Your task to perform on an android device: toggle notification dots Image 0: 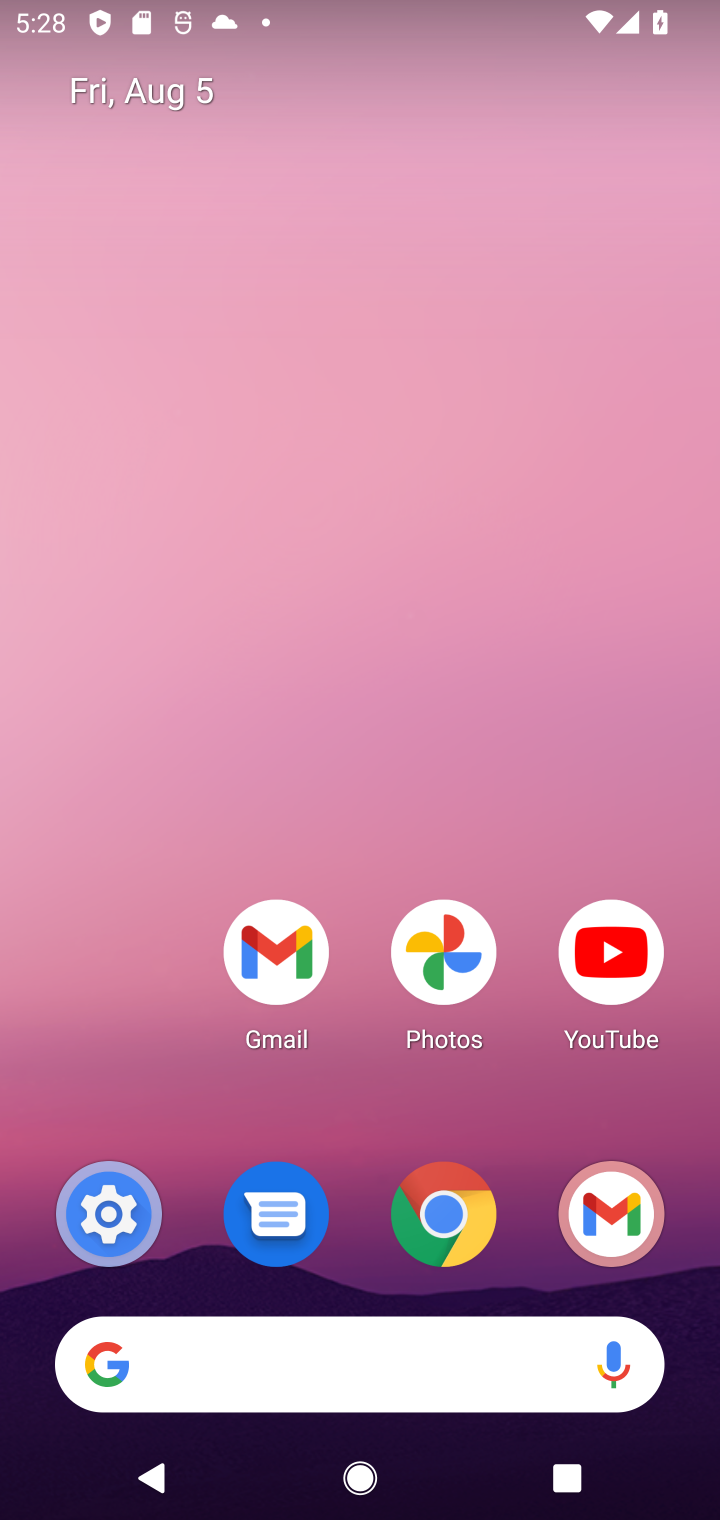
Step 0: click (99, 1213)
Your task to perform on an android device: toggle notification dots Image 1: 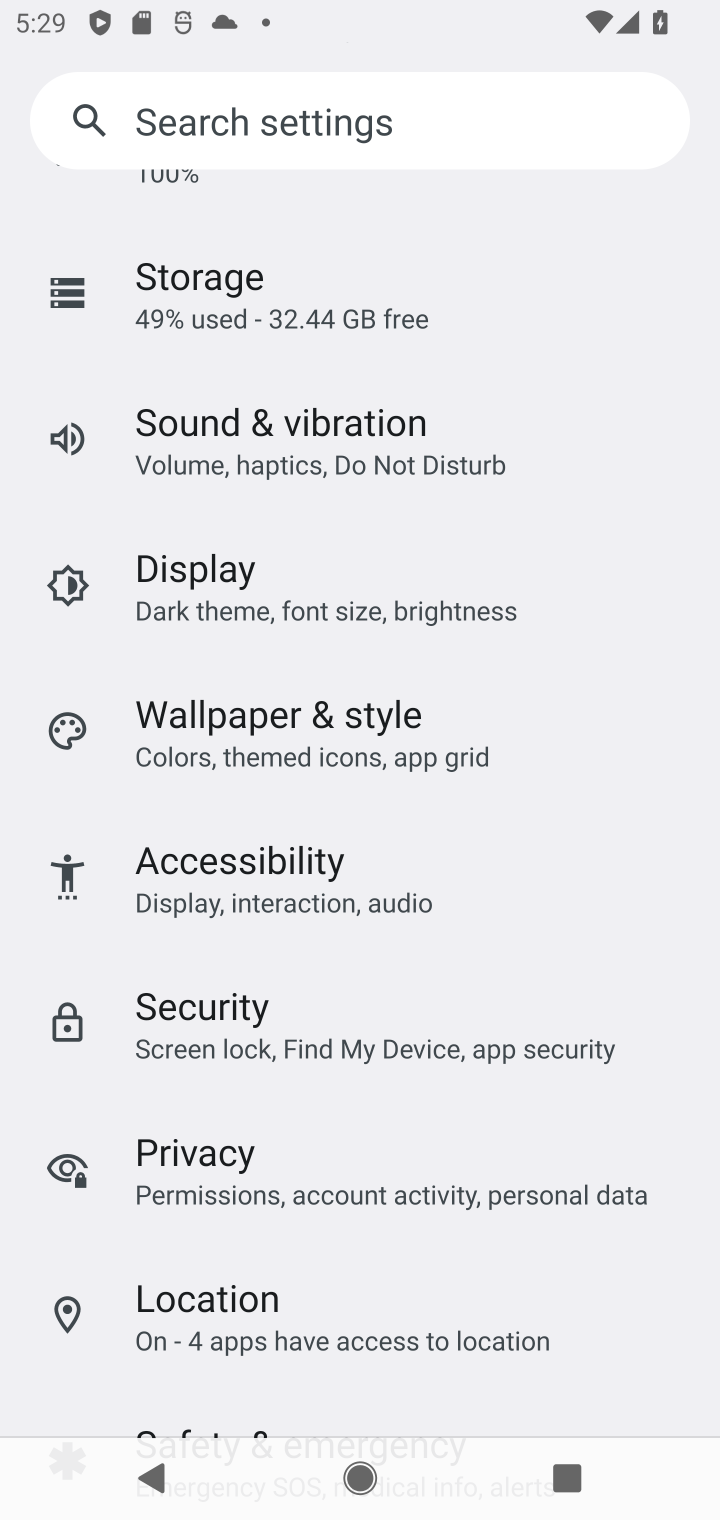
Step 1: drag from (396, 400) to (410, 1234)
Your task to perform on an android device: toggle notification dots Image 2: 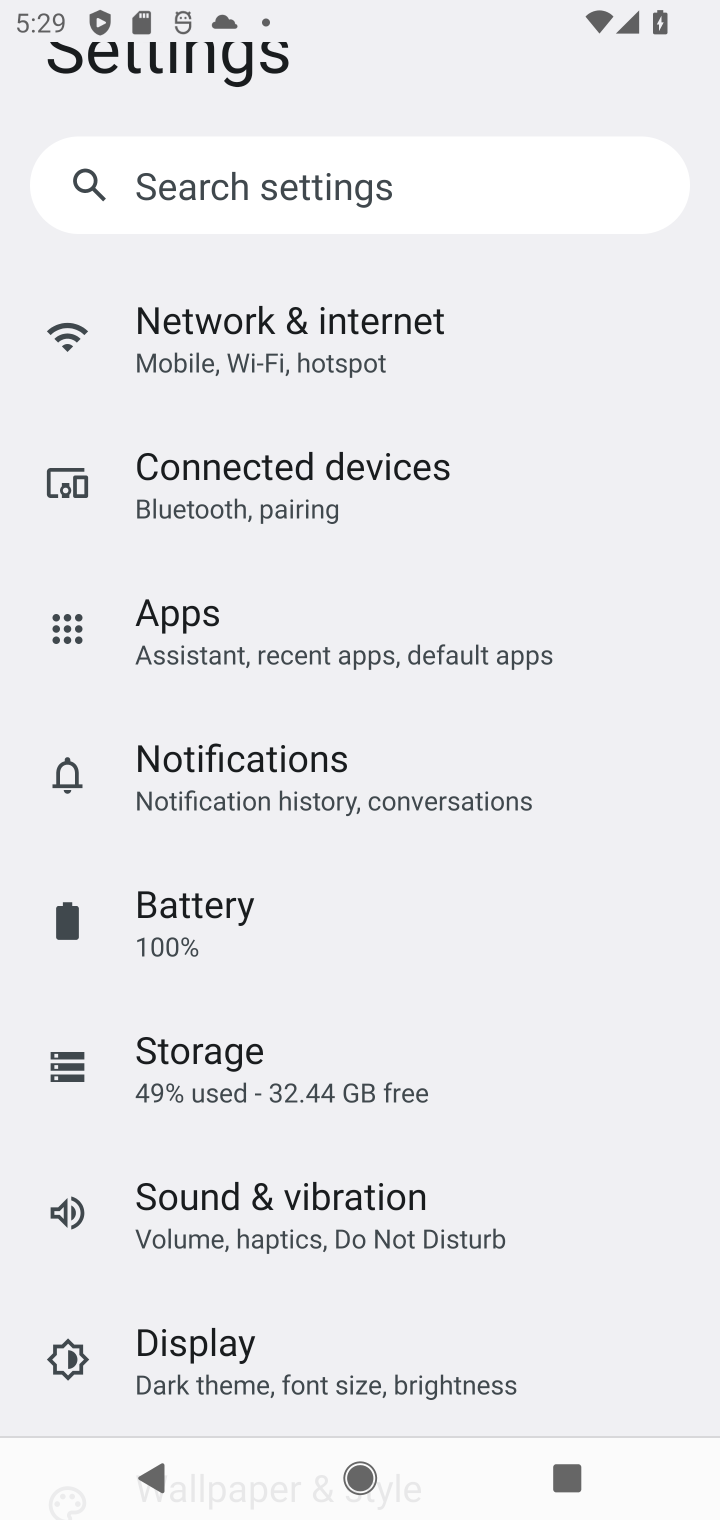
Step 2: click (373, 779)
Your task to perform on an android device: toggle notification dots Image 3: 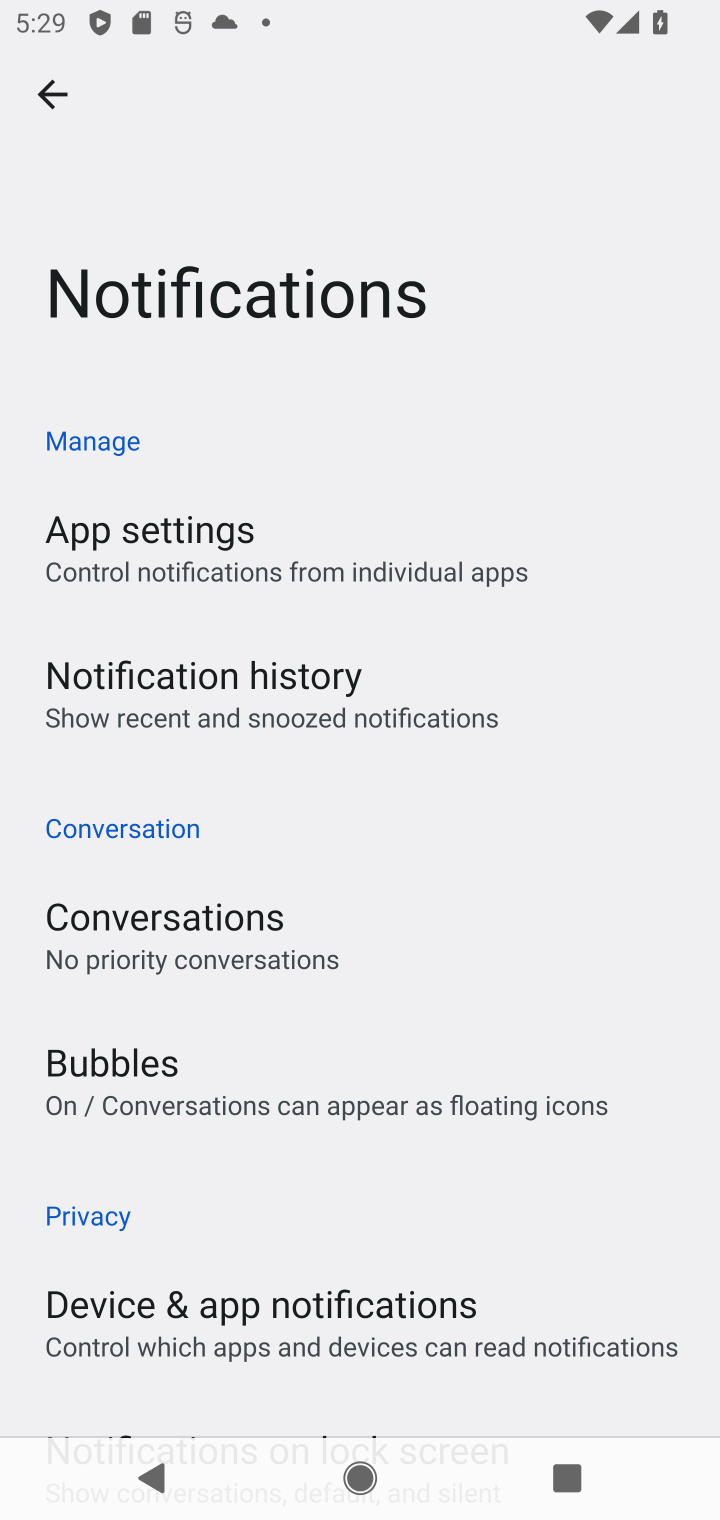
Step 3: drag from (337, 1209) to (364, 142)
Your task to perform on an android device: toggle notification dots Image 4: 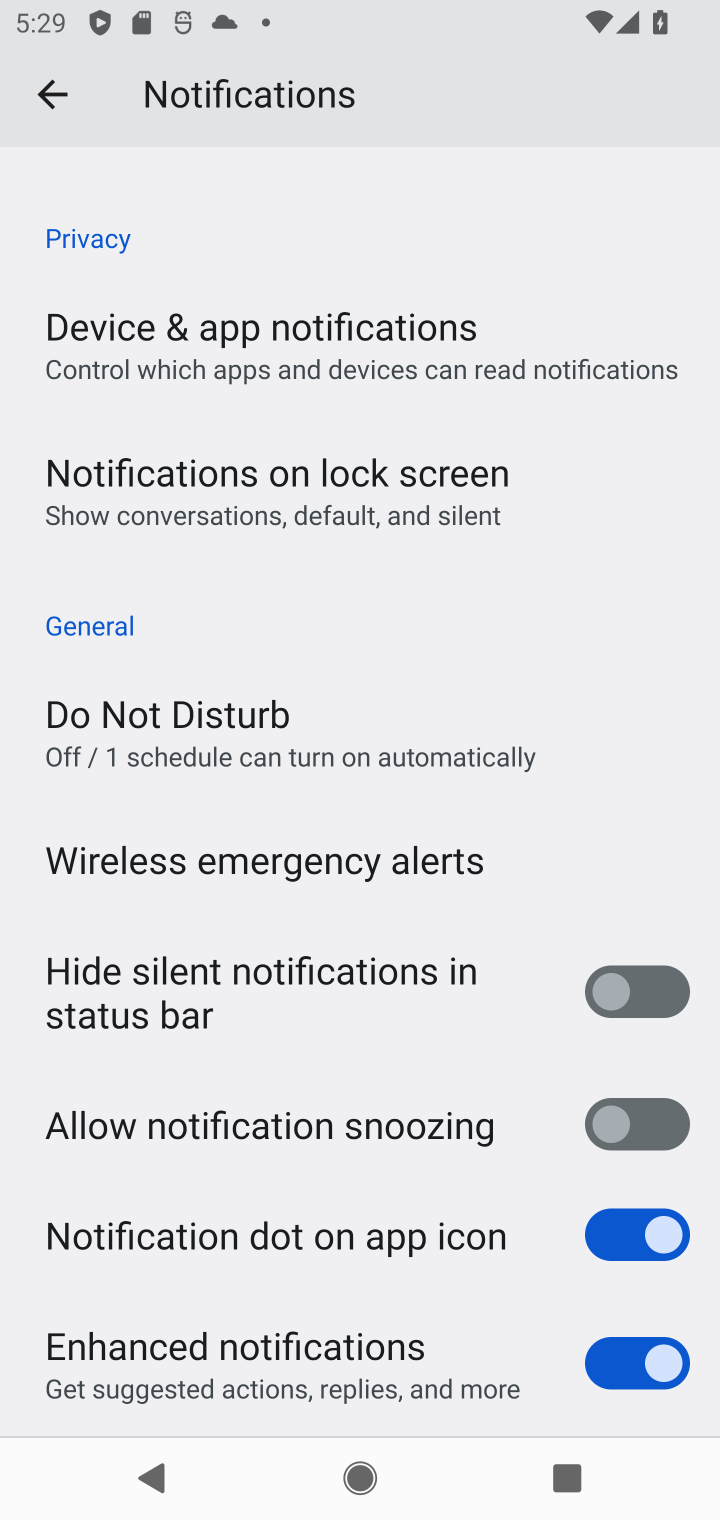
Step 4: click (656, 1232)
Your task to perform on an android device: toggle notification dots Image 5: 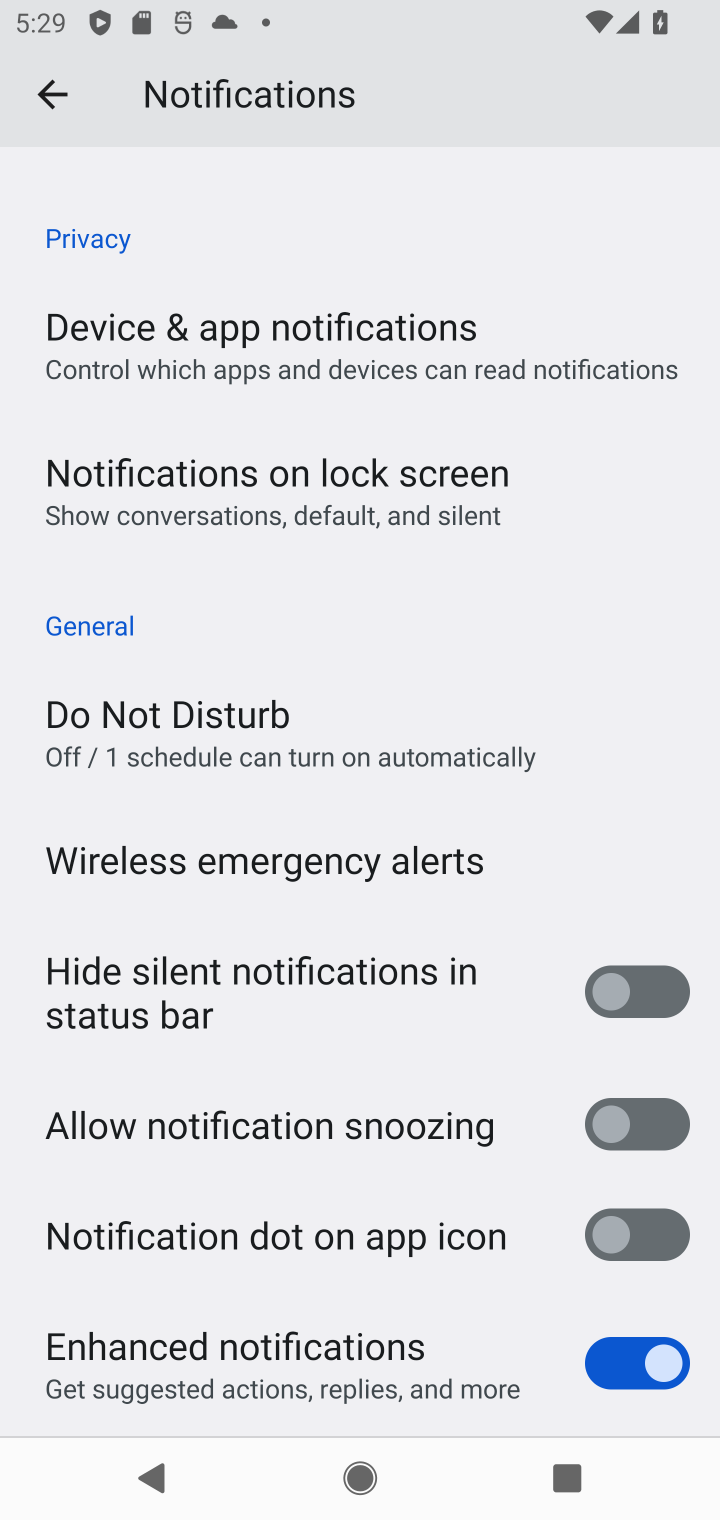
Step 5: task complete